Your task to perform on an android device: change text size in settings app Image 0: 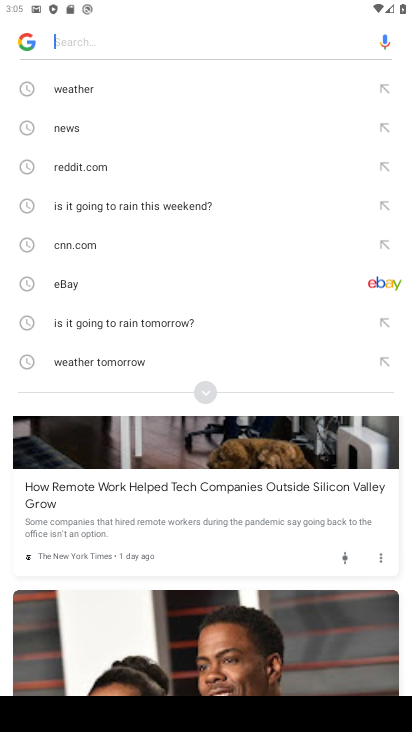
Step 0: press back button
Your task to perform on an android device: change text size in settings app Image 1: 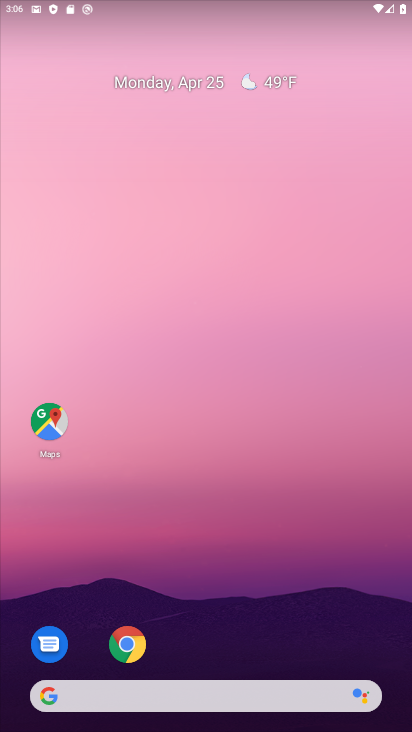
Step 1: drag from (287, 614) to (221, 195)
Your task to perform on an android device: change text size in settings app Image 2: 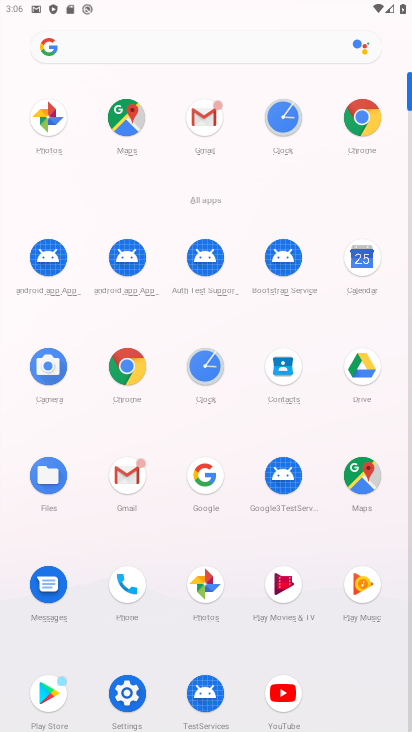
Step 2: click (111, 707)
Your task to perform on an android device: change text size in settings app Image 3: 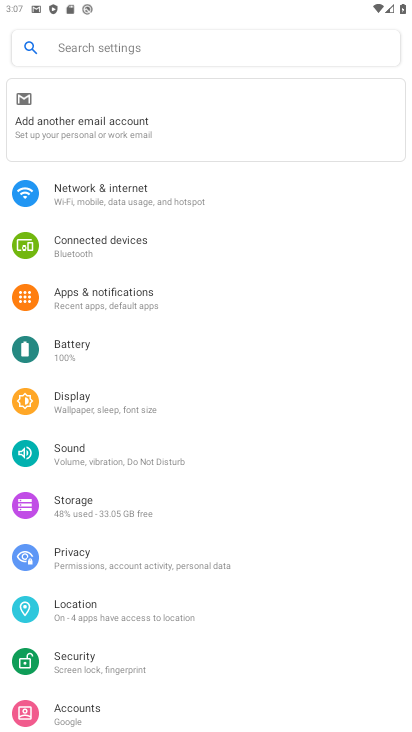
Step 3: click (110, 410)
Your task to perform on an android device: change text size in settings app Image 4: 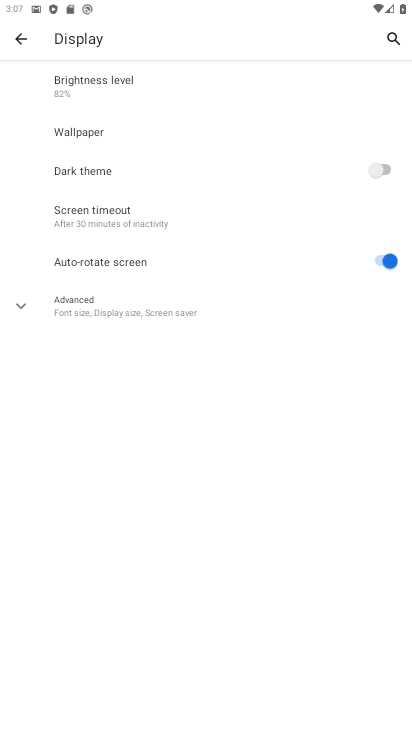
Step 4: click (172, 295)
Your task to perform on an android device: change text size in settings app Image 5: 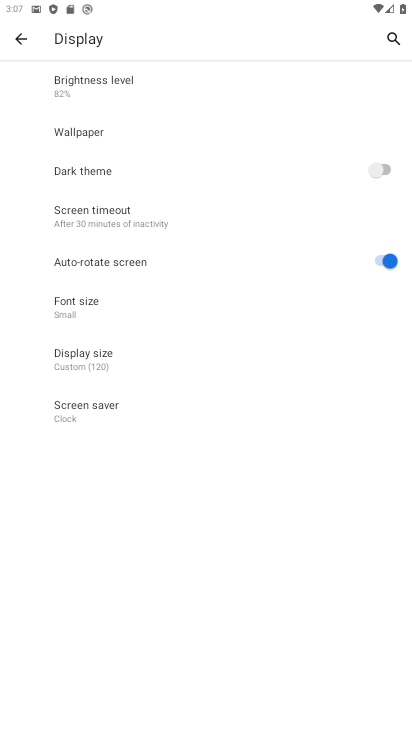
Step 5: click (133, 317)
Your task to perform on an android device: change text size in settings app Image 6: 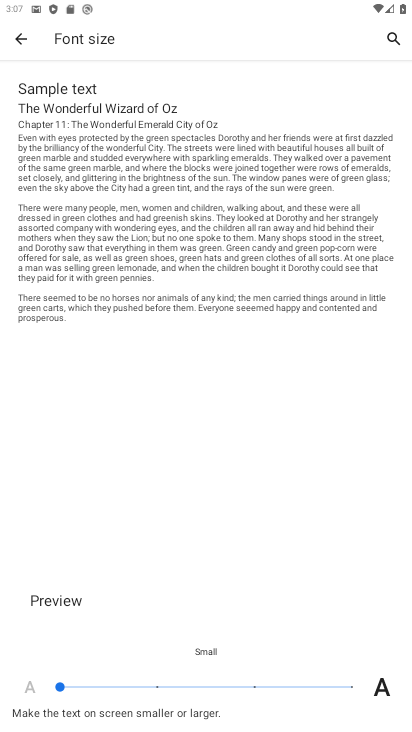
Step 6: click (156, 685)
Your task to perform on an android device: change text size in settings app Image 7: 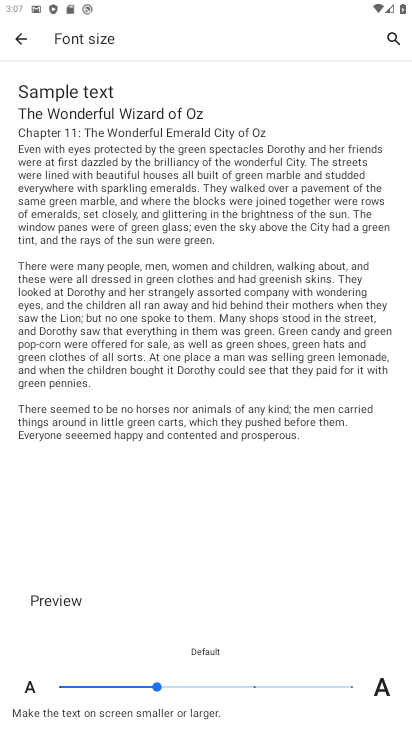
Step 7: task complete